Your task to perform on an android device: Open maps Image 0: 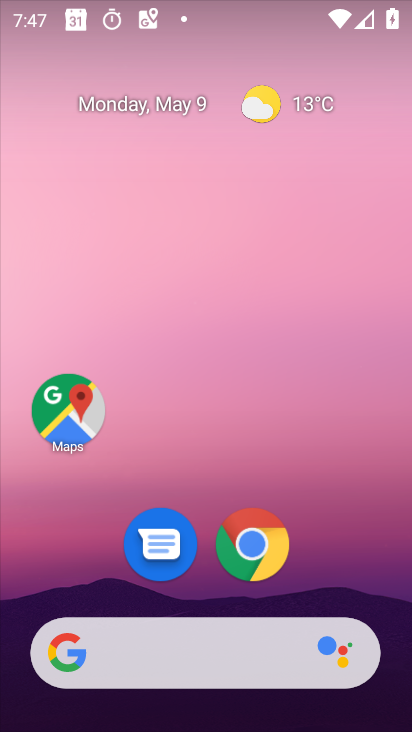
Step 0: drag from (367, 569) to (299, 5)
Your task to perform on an android device: Open maps Image 1: 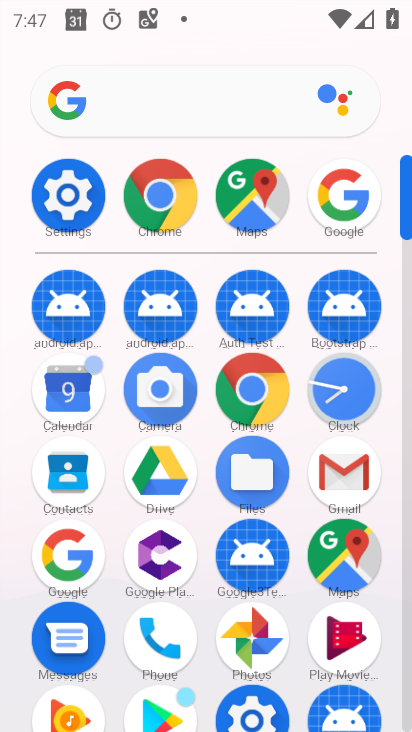
Step 1: click (251, 207)
Your task to perform on an android device: Open maps Image 2: 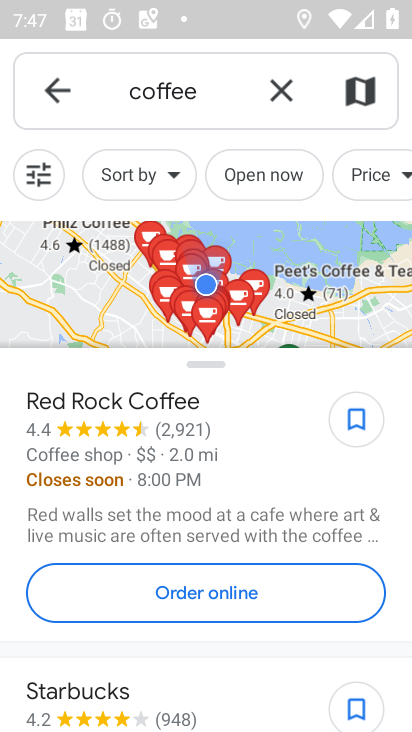
Step 2: task complete